Your task to perform on an android device: turn on translation in the chrome app Image 0: 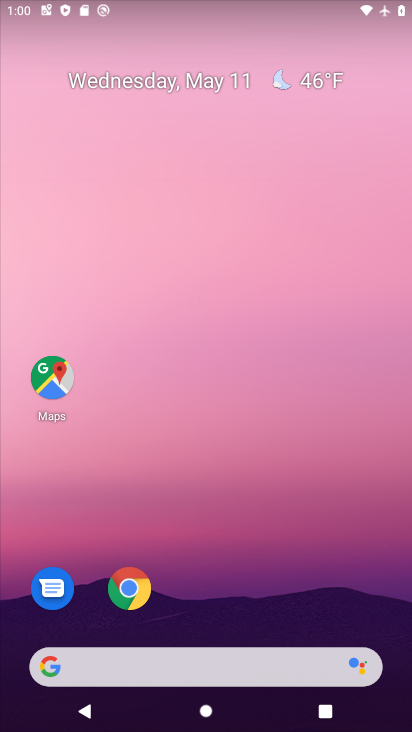
Step 0: click (137, 588)
Your task to perform on an android device: turn on translation in the chrome app Image 1: 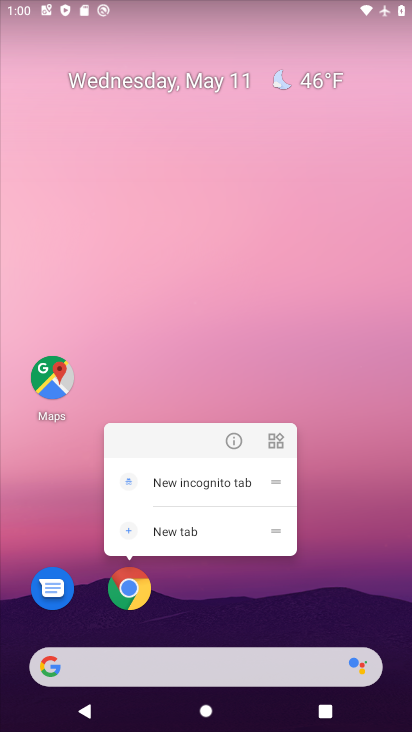
Step 1: click (133, 595)
Your task to perform on an android device: turn on translation in the chrome app Image 2: 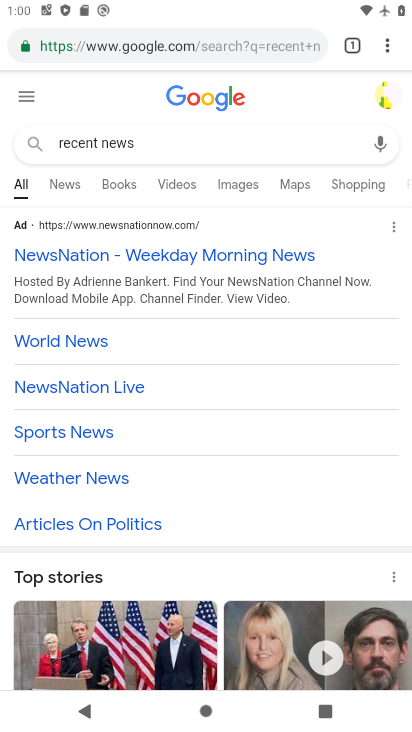
Step 2: drag from (388, 47) to (268, 547)
Your task to perform on an android device: turn on translation in the chrome app Image 3: 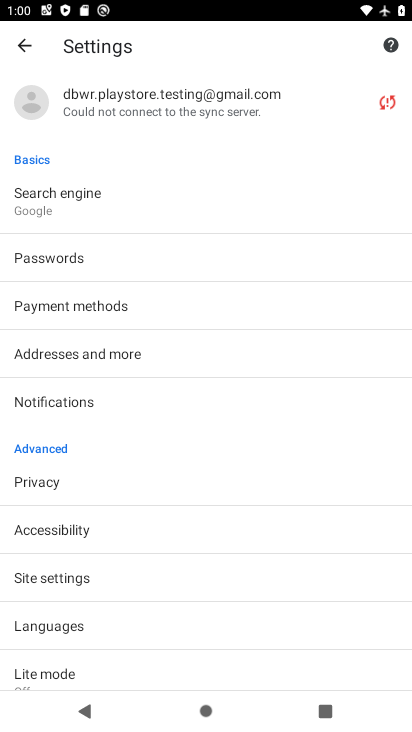
Step 3: click (76, 626)
Your task to perform on an android device: turn on translation in the chrome app Image 4: 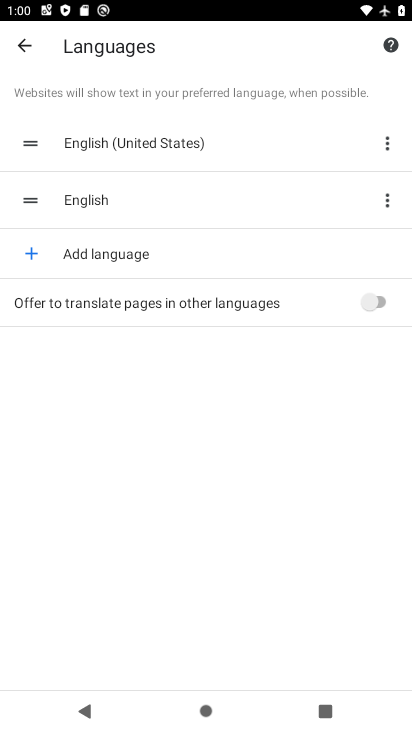
Step 4: click (362, 304)
Your task to perform on an android device: turn on translation in the chrome app Image 5: 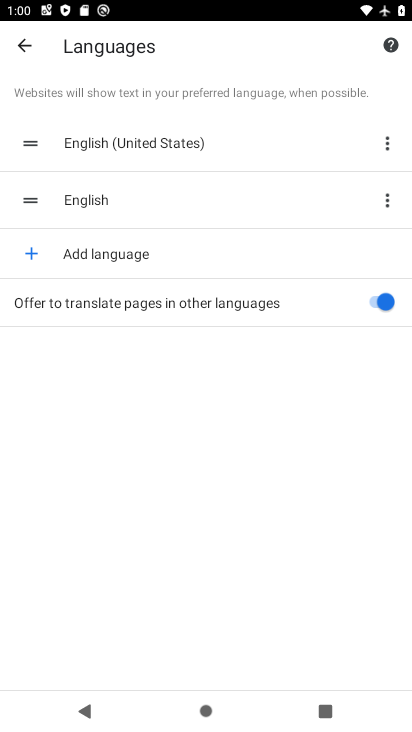
Step 5: task complete